Your task to perform on an android device: What's on my calendar today? Image 0: 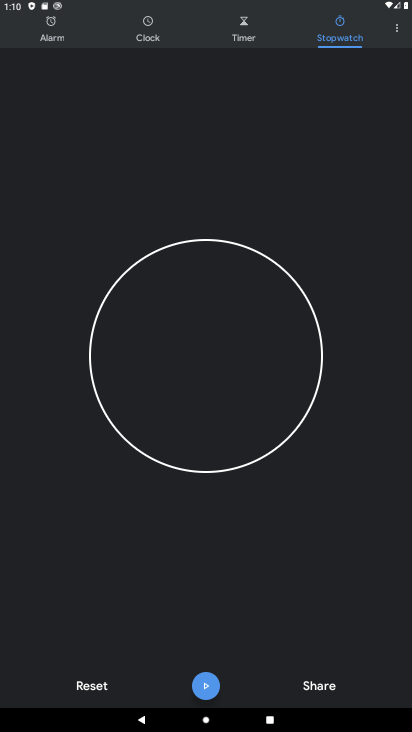
Step 0: press home button
Your task to perform on an android device: What's on my calendar today? Image 1: 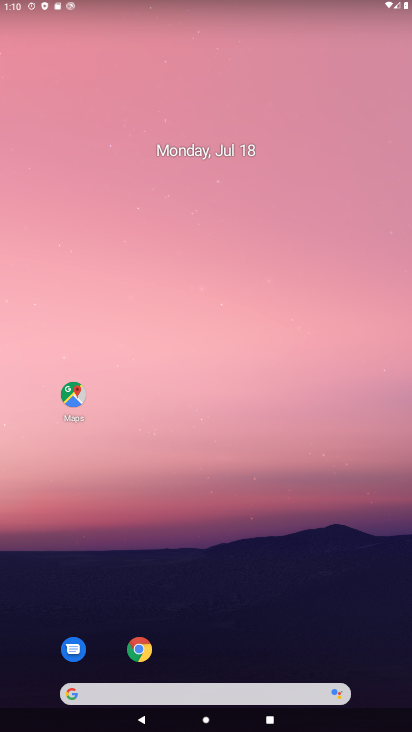
Step 1: drag from (223, 674) to (201, 145)
Your task to perform on an android device: What's on my calendar today? Image 2: 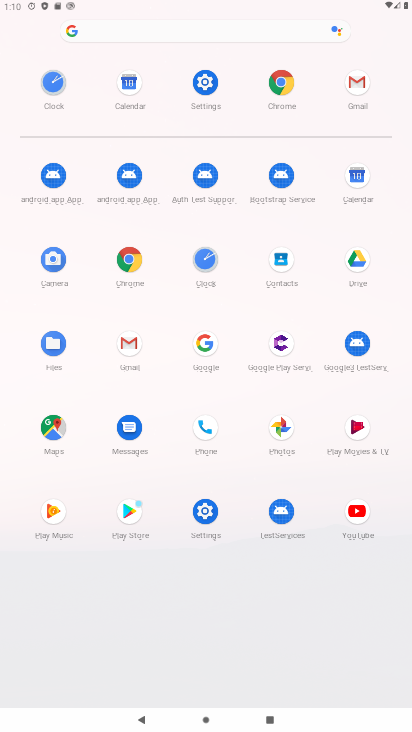
Step 2: click (124, 93)
Your task to perform on an android device: What's on my calendar today? Image 3: 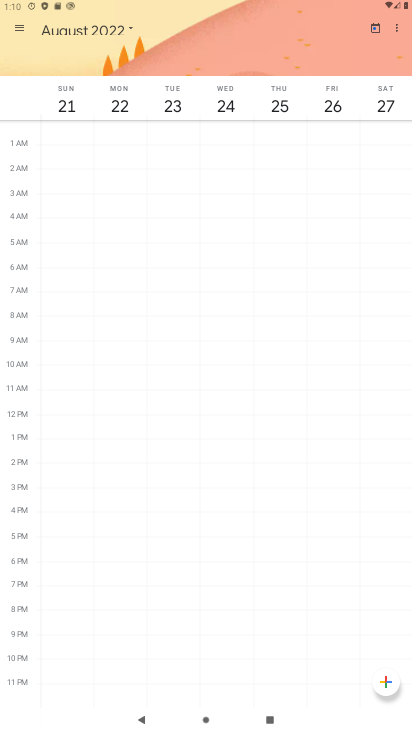
Step 3: click (370, 27)
Your task to perform on an android device: What's on my calendar today? Image 4: 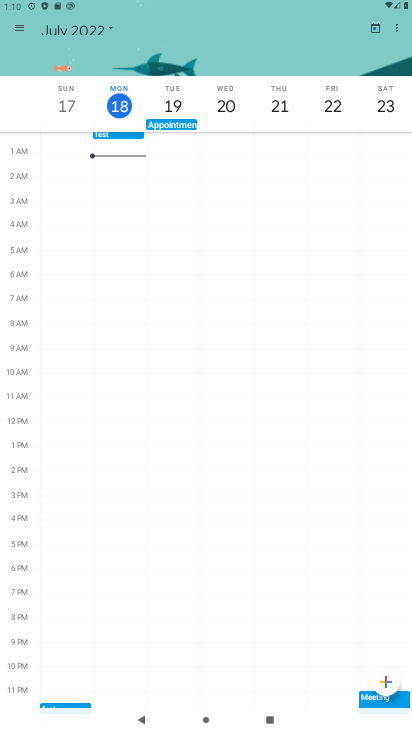
Step 4: click (168, 104)
Your task to perform on an android device: What's on my calendar today? Image 5: 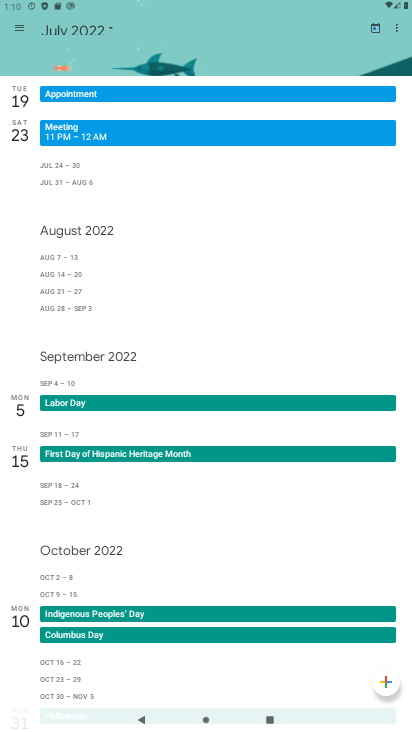
Step 5: task complete